Your task to perform on an android device: Turn on the flashlight Image 0: 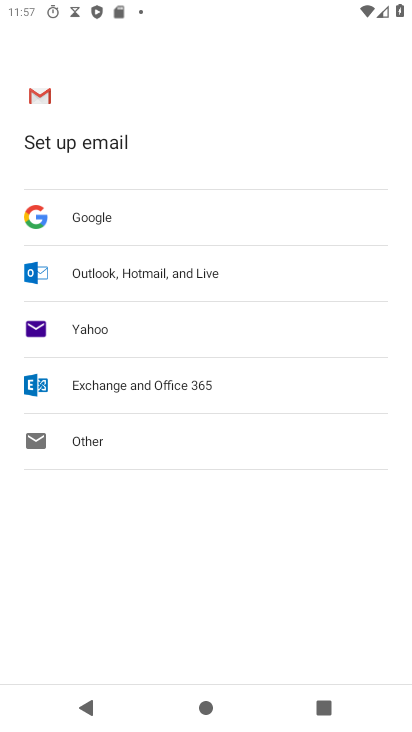
Step 0: press home button
Your task to perform on an android device: Turn on the flashlight Image 1: 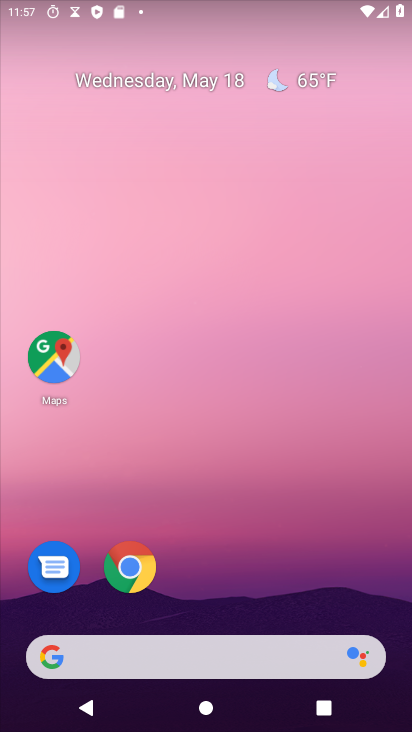
Step 1: drag from (232, 588) to (223, 125)
Your task to perform on an android device: Turn on the flashlight Image 2: 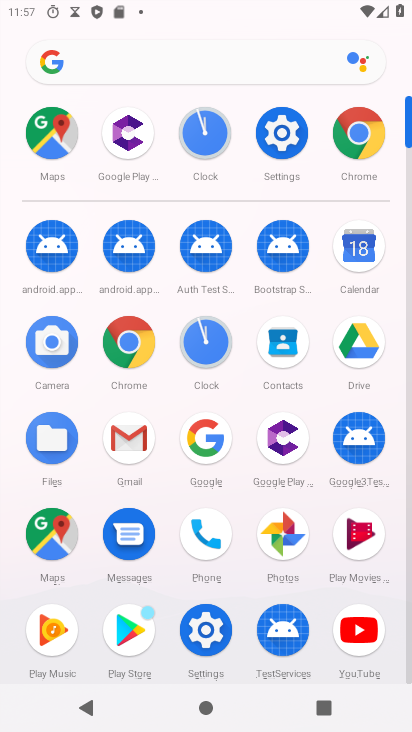
Step 2: click (291, 141)
Your task to perform on an android device: Turn on the flashlight Image 3: 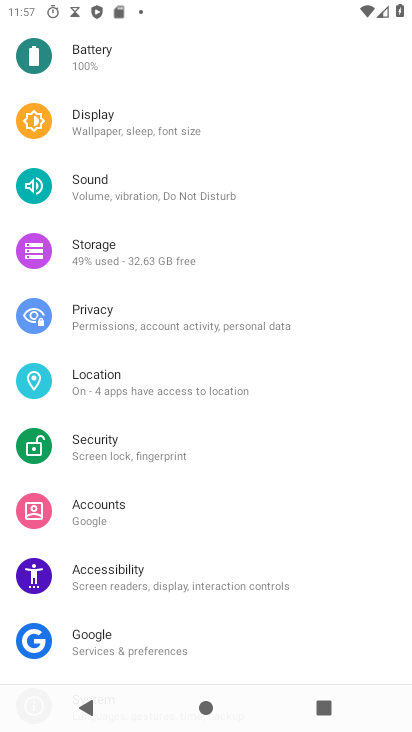
Step 3: drag from (190, 173) to (204, 424)
Your task to perform on an android device: Turn on the flashlight Image 4: 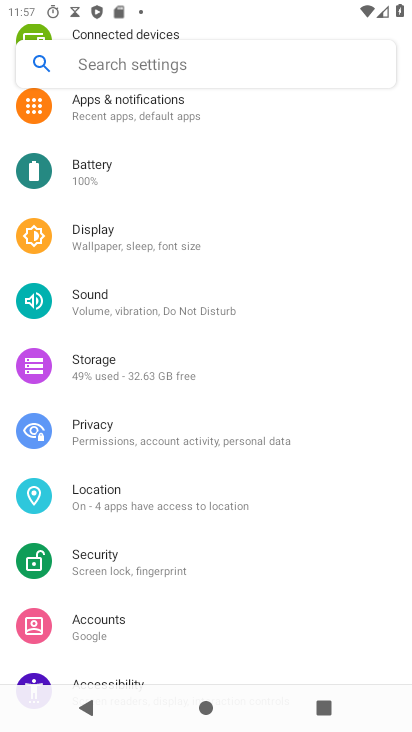
Step 4: drag from (247, 122) to (267, 352)
Your task to perform on an android device: Turn on the flashlight Image 5: 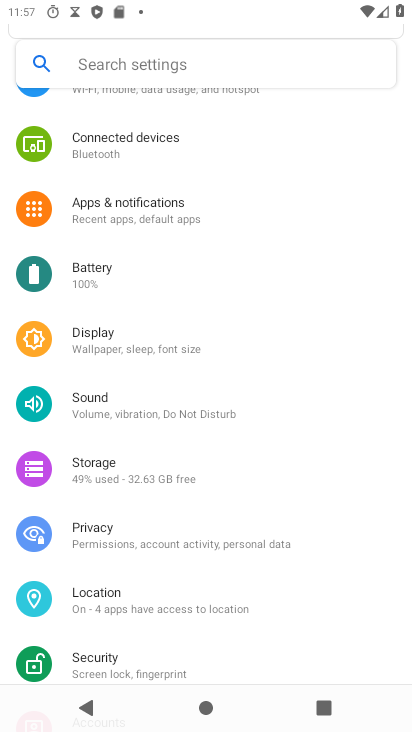
Step 5: click (178, 210)
Your task to perform on an android device: Turn on the flashlight Image 6: 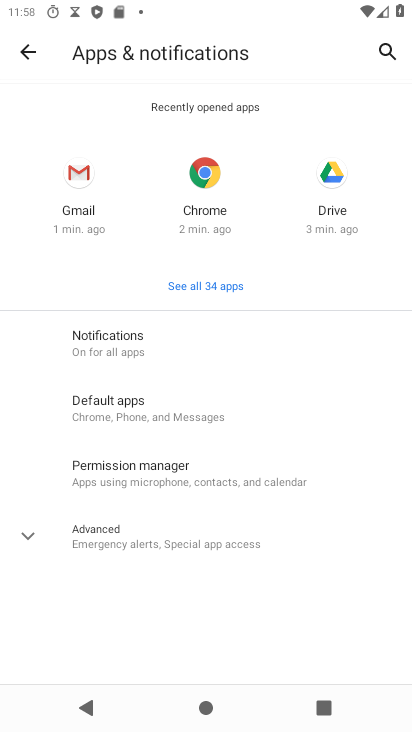
Step 6: click (209, 542)
Your task to perform on an android device: Turn on the flashlight Image 7: 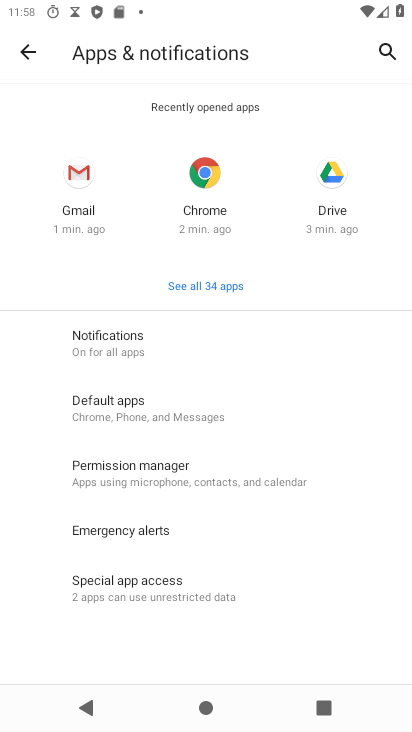
Step 7: task complete